Your task to perform on an android device: open app "Adobe Acrobat Reader: Edit PDF" (install if not already installed) and go to login screen Image 0: 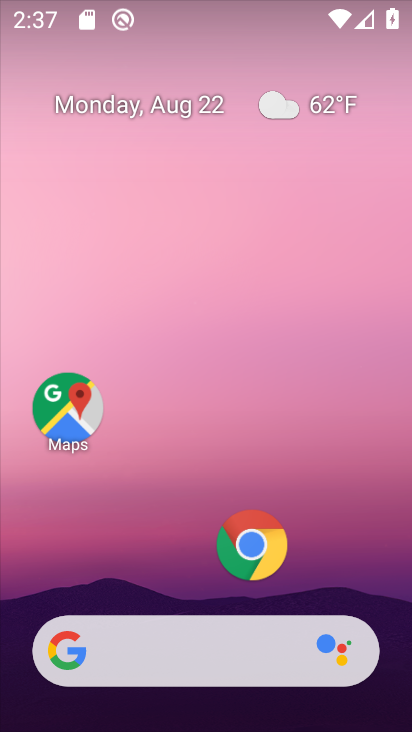
Step 0: drag from (157, 455) to (223, 87)
Your task to perform on an android device: open app "Adobe Acrobat Reader: Edit PDF" (install if not already installed) and go to login screen Image 1: 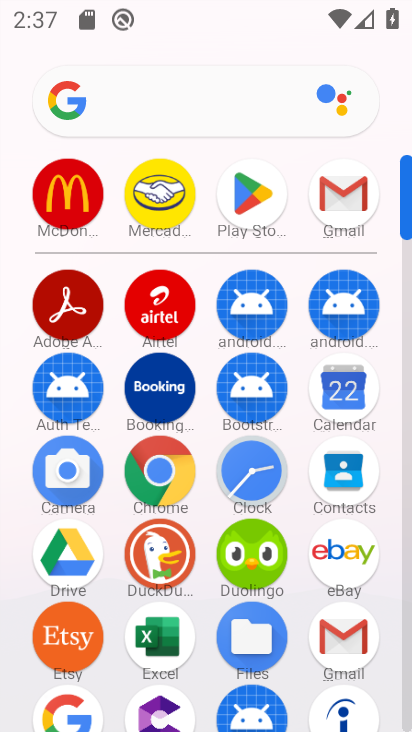
Step 1: click (249, 193)
Your task to perform on an android device: open app "Adobe Acrobat Reader: Edit PDF" (install if not already installed) and go to login screen Image 2: 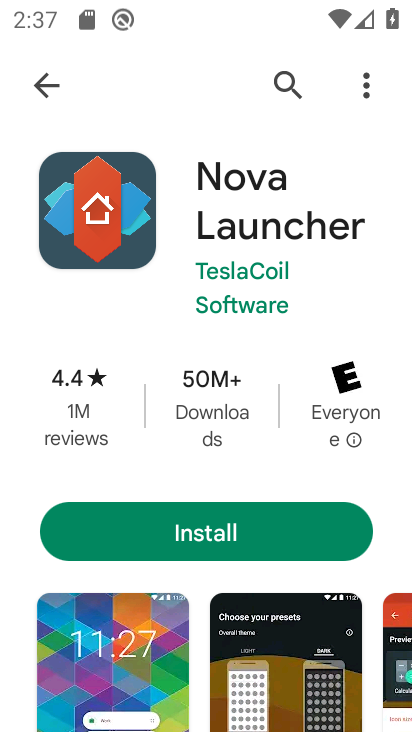
Step 2: click (281, 79)
Your task to perform on an android device: open app "Adobe Acrobat Reader: Edit PDF" (install if not already installed) and go to login screen Image 3: 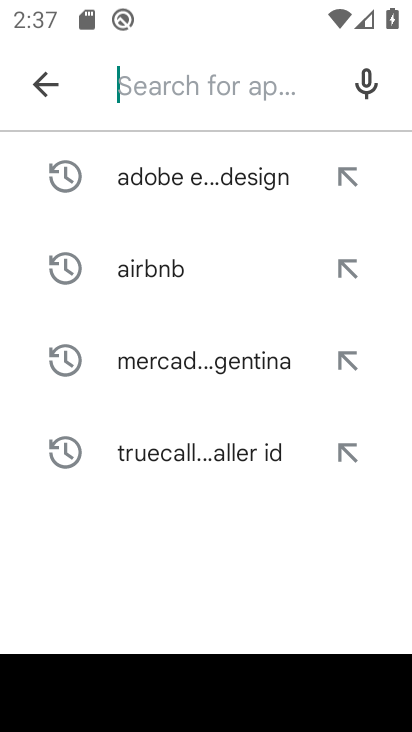
Step 3: click (143, 83)
Your task to perform on an android device: open app "Adobe Acrobat Reader: Edit PDF" (install if not already installed) and go to login screen Image 4: 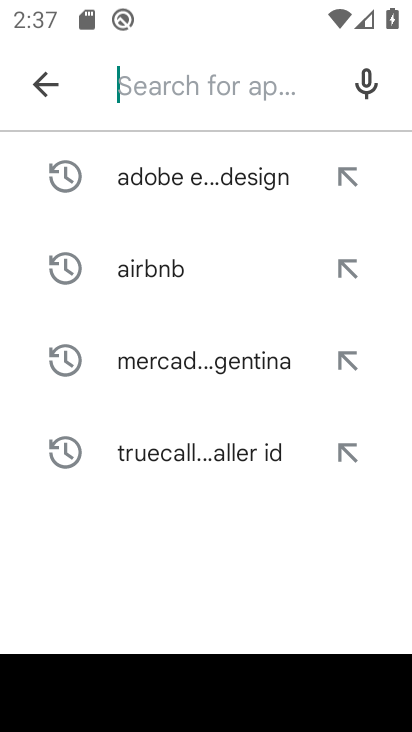
Step 4: type "Adobe Acrobat Reader"
Your task to perform on an android device: open app "Adobe Acrobat Reader: Edit PDF" (install if not already installed) and go to login screen Image 5: 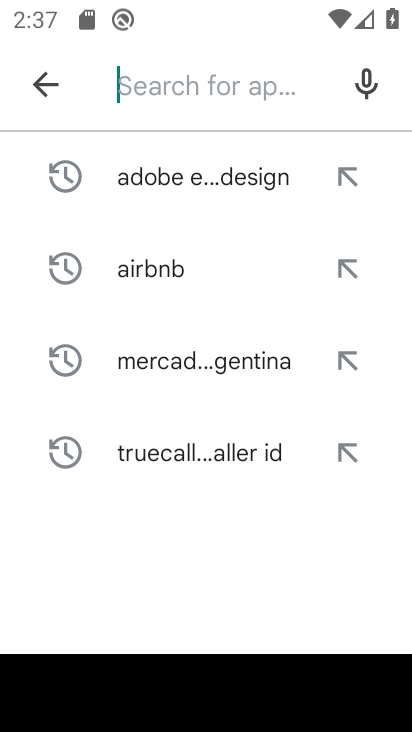
Step 5: click (194, 537)
Your task to perform on an android device: open app "Adobe Acrobat Reader: Edit PDF" (install if not already installed) and go to login screen Image 6: 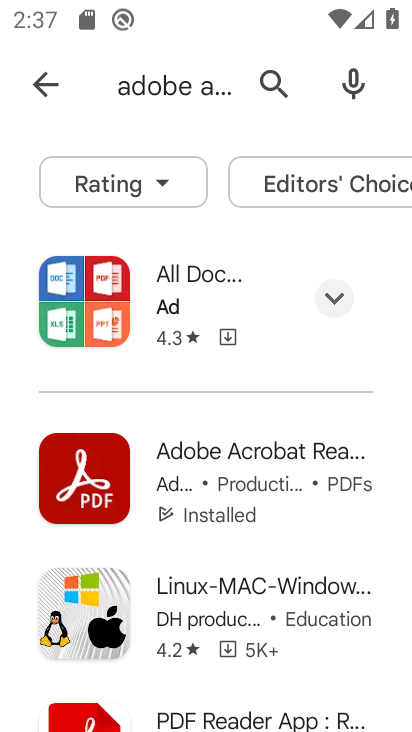
Step 6: drag from (217, 654) to (267, 458)
Your task to perform on an android device: open app "Adobe Acrobat Reader: Edit PDF" (install if not already installed) and go to login screen Image 7: 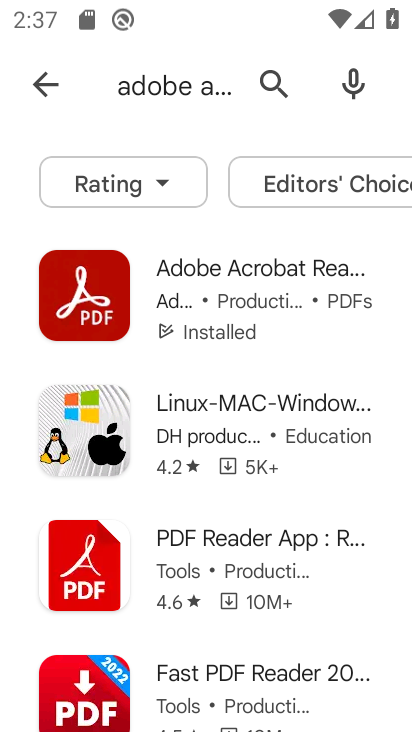
Step 7: click (238, 302)
Your task to perform on an android device: open app "Adobe Acrobat Reader: Edit PDF" (install if not already installed) and go to login screen Image 8: 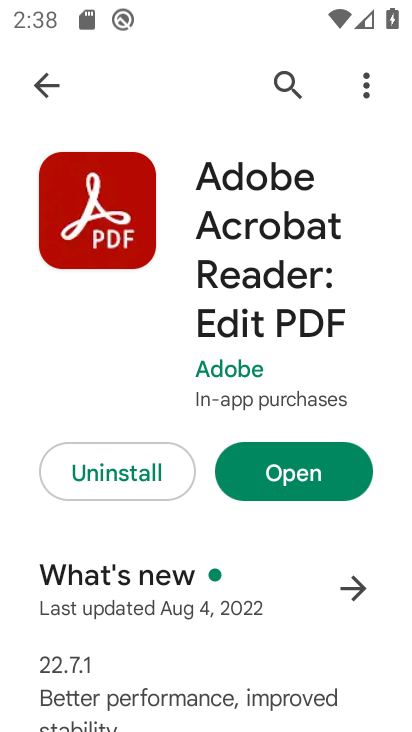
Step 8: click (299, 470)
Your task to perform on an android device: open app "Adobe Acrobat Reader: Edit PDF" (install if not already installed) and go to login screen Image 9: 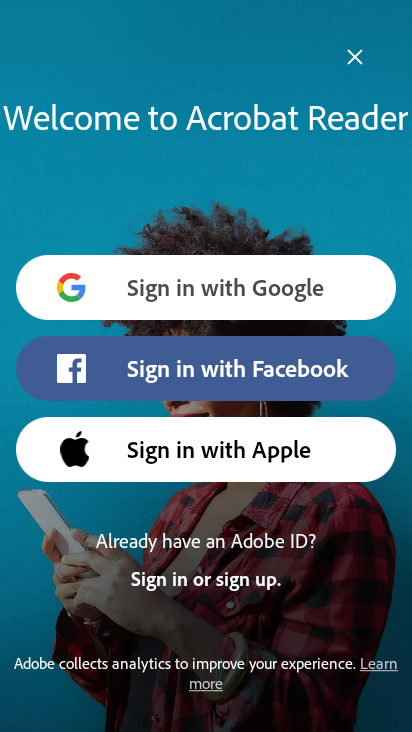
Step 9: task complete